Your task to perform on an android device: Go to battery settings Image 0: 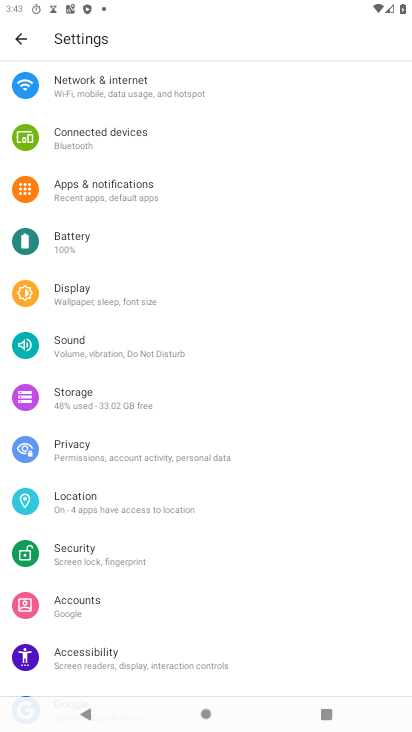
Step 0: click (102, 247)
Your task to perform on an android device: Go to battery settings Image 1: 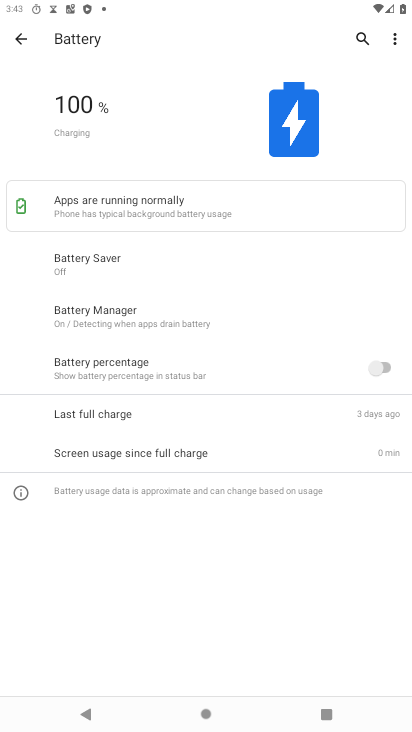
Step 1: task complete